Your task to perform on an android device: Go to CNN.com Image 0: 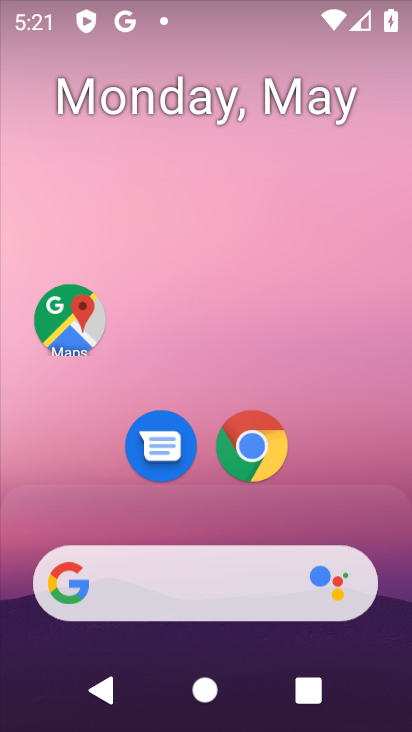
Step 0: click (271, 448)
Your task to perform on an android device: Go to CNN.com Image 1: 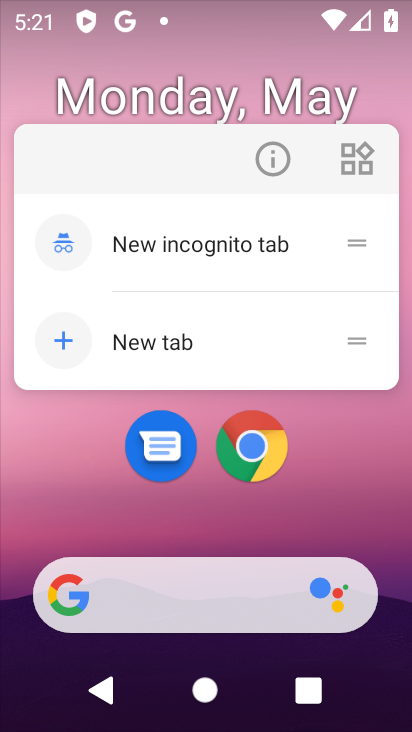
Step 1: click (322, 492)
Your task to perform on an android device: Go to CNN.com Image 2: 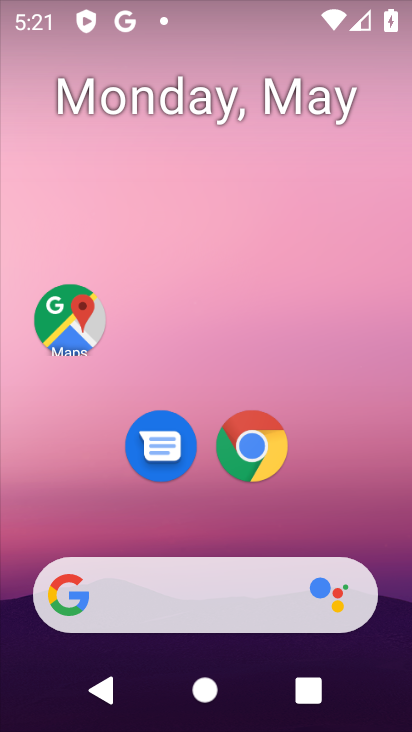
Step 2: drag from (285, 519) to (287, 61)
Your task to perform on an android device: Go to CNN.com Image 3: 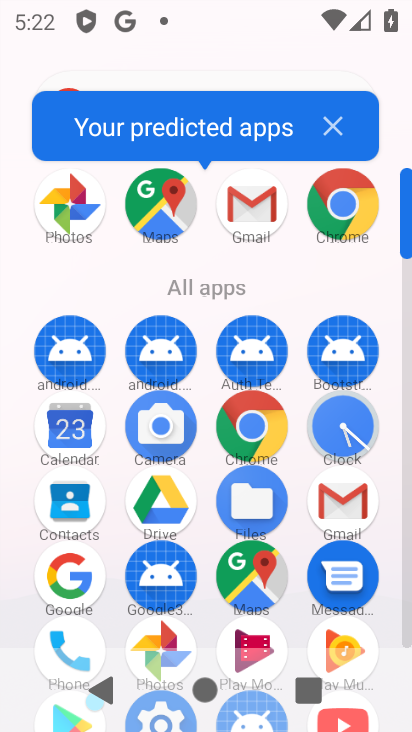
Step 3: click (255, 409)
Your task to perform on an android device: Go to CNN.com Image 4: 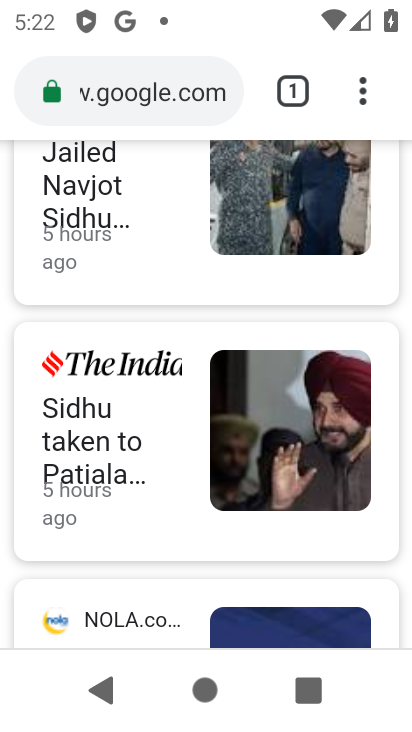
Step 4: click (140, 89)
Your task to perform on an android device: Go to CNN.com Image 5: 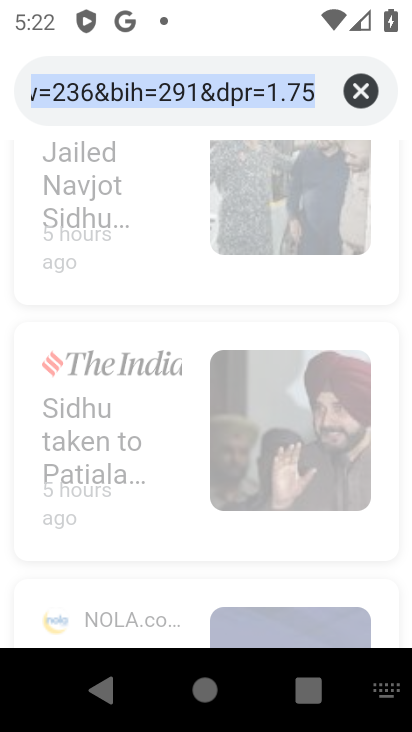
Step 5: click (365, 82)
Your task to perform on an android device: Go to CNN.com Image 6: 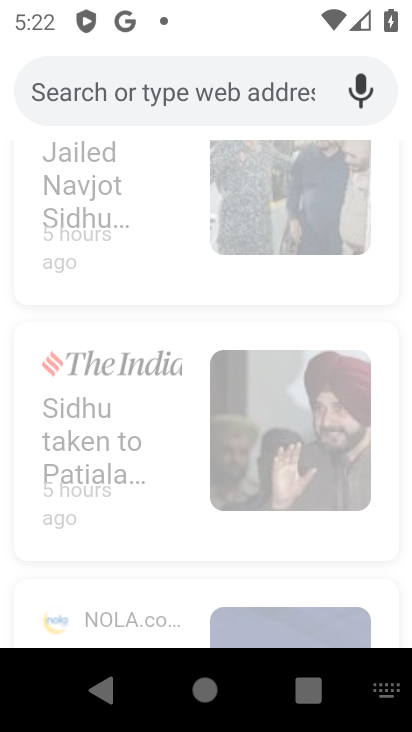
Step 6: type "CNN.com"
Your task to perform on an android device: Go to CNN.com Image 7: 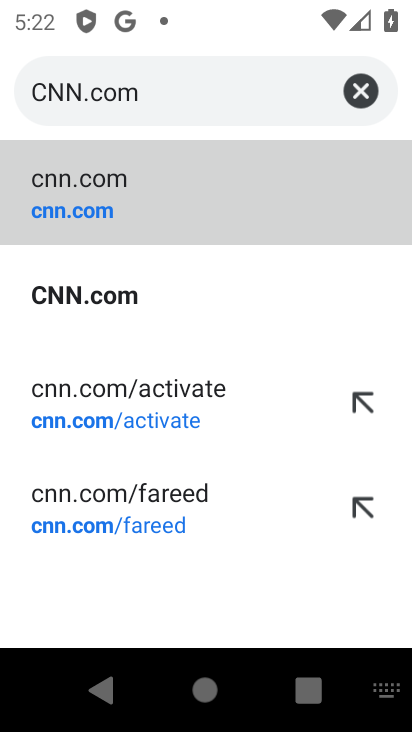
Step 7: click (107, 209)
Your task to perform on an android device: Go to CNN.com Image 8: 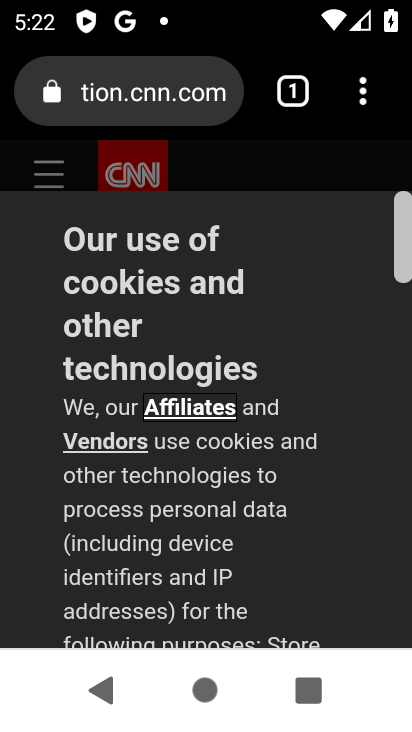
Step 8: task complete